Your task to perform on an android device: turn off notifications in google photos Image 0: 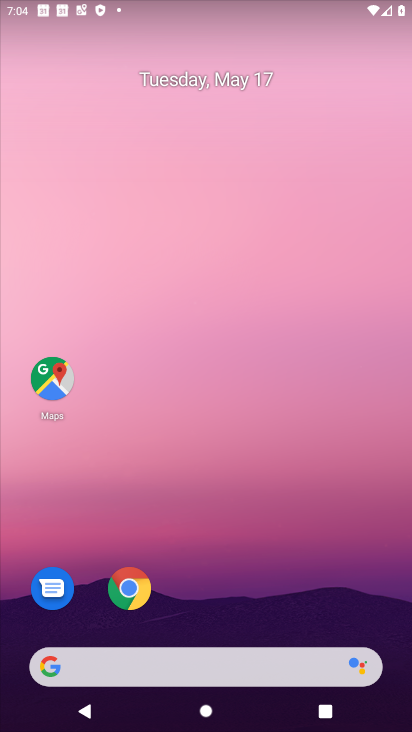
Step 0: drag from (257, 579) to (231, 86)
Your task to perform on an android device: turn off notifications in google photos Image 1: 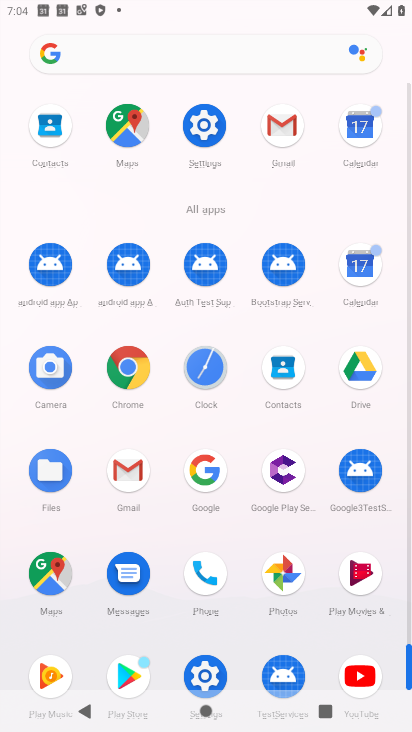
Step 1: click (283, 574)
Your task to perform on an android device: turn off notifications in google photos Image 2: 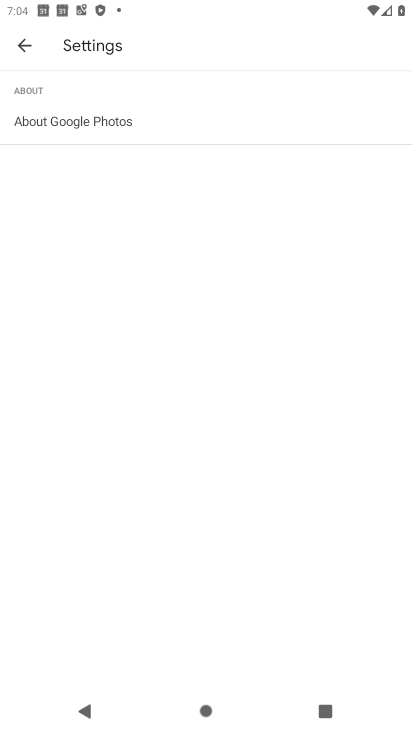
Step 2: press back button
Your task to perform on an android device: turn off notifications in google photos Image 3: 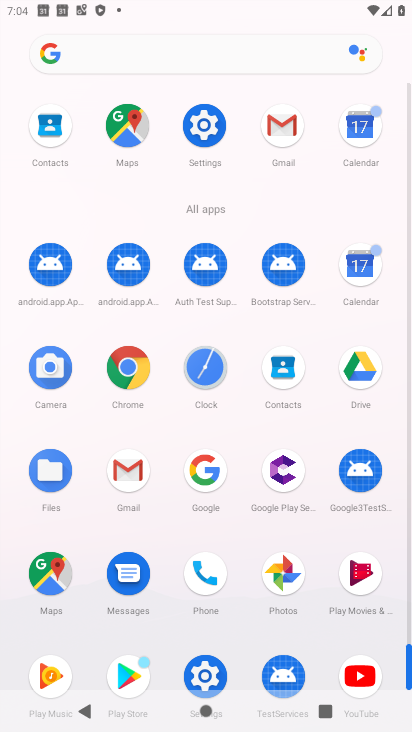
Step 3: click (283, 575)
Your task to perform on an android device: turn off notifications in google photos Image 4: 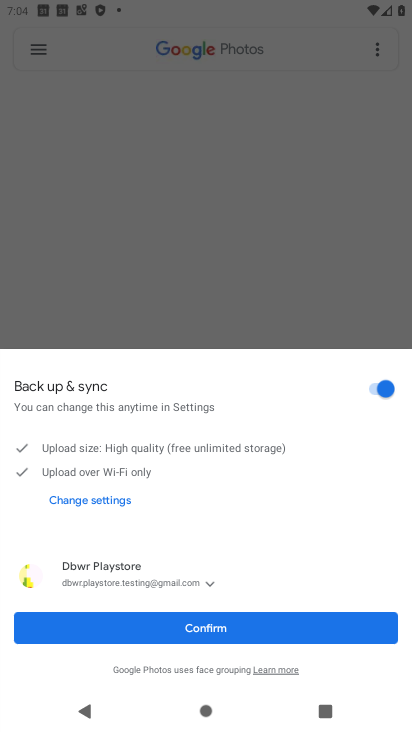
Step 4: click (262, 623)
Your task to perform on an android device: turn off notifications in google photos Image 5: 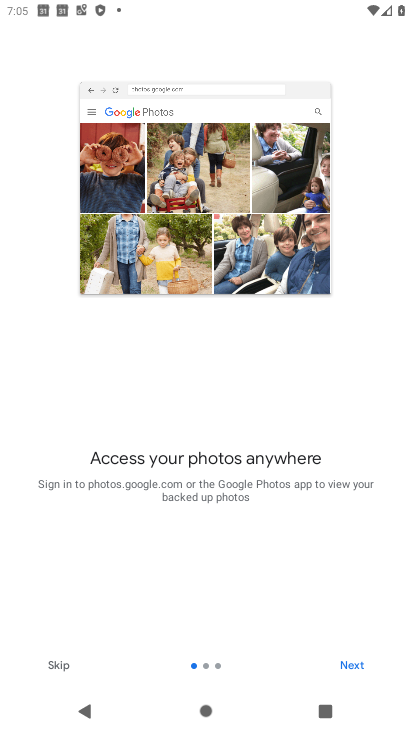
Step 5: click (365, 661)
Your task to perform on an android device: turn off notifications in google photos Image 6: 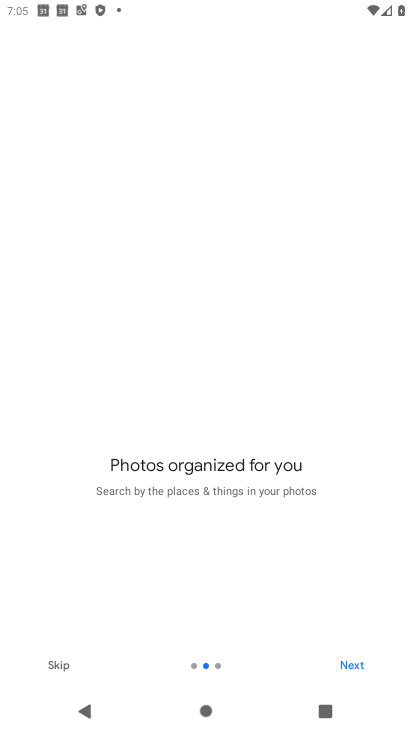
Step 6: click (365, 661)
Your task to perform on an android device: turn off notifications in google photos Image 7: 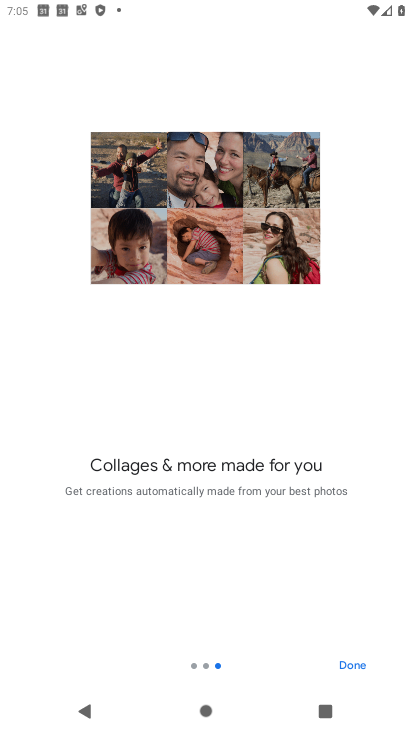
Step 7: click (365, 661)
Your task to perform on an android device: turn off notifications in google photos Image 8: 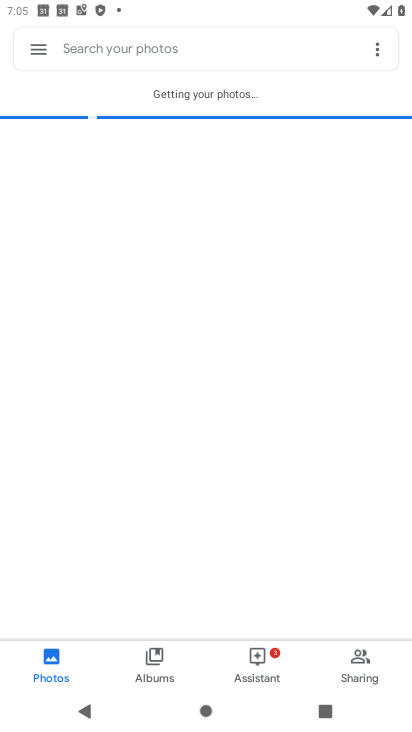
Step 8: click (30, 49)
Your task to perform on an android device: turn off notifications in google photos Image 9: 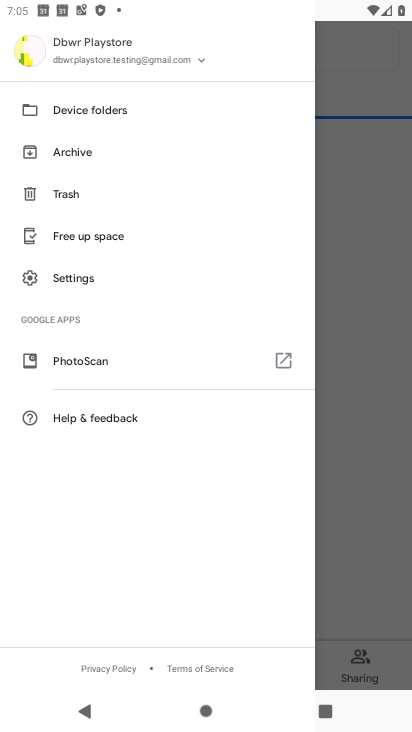
Step 9: click (87, 278)
Your task to perform on an android device: turn off notifications in google photos Image 10: 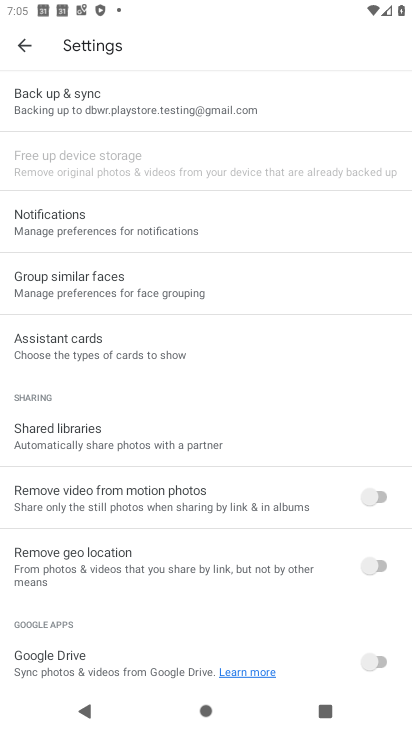
Step 10: click (65, 230)
Your task to perform on an android device: turn off notifications in google photos Image 11: 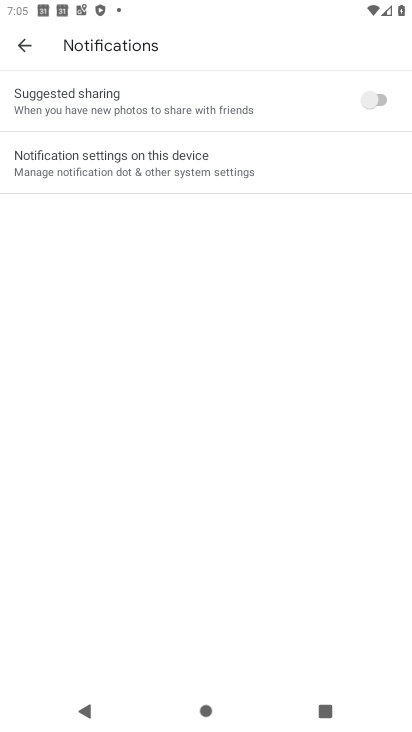
Step 11: click (113, 165)
Your task to perform on an android device: turn off notifications in google photos Image 12: 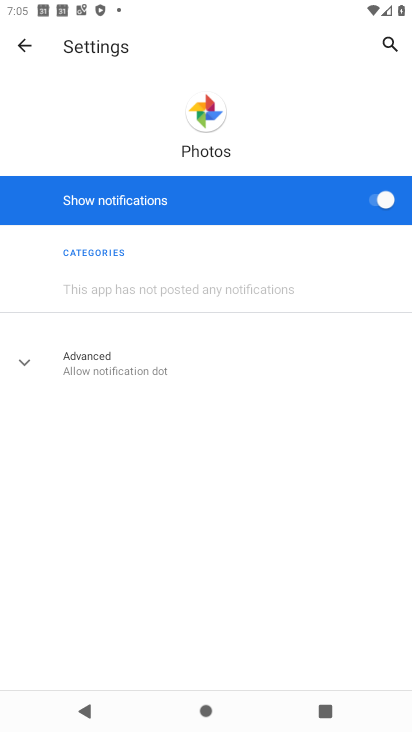
Step 12: click (379, 199)
Your task to perform on an android device: turn off notifications in google photos Image 13: 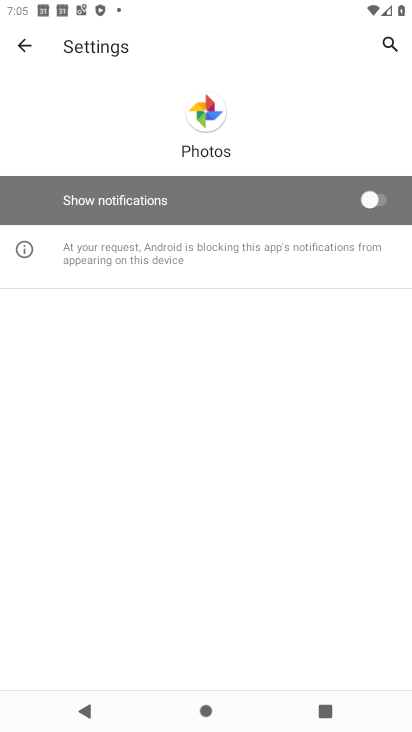
Step 13: task complete